Your task to perform on an android device: Open the Play Movies app and select the watchlist tab. Image 0: 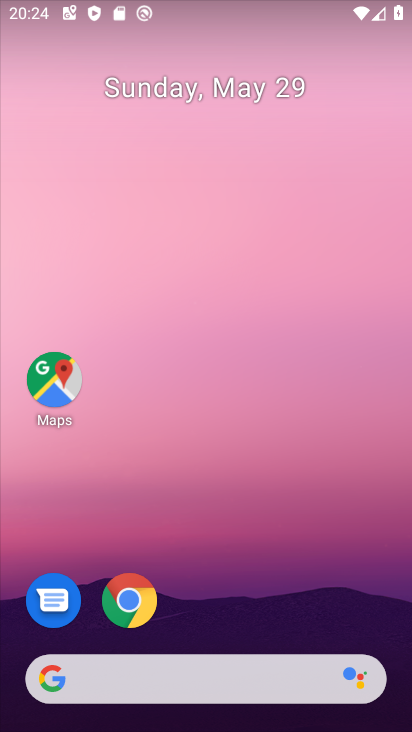
Step 0: drag from (243, 569) to (217, 183)
Your task to perform on an android device: Open the Play Movies app and select the watchlist tab. Image 1: 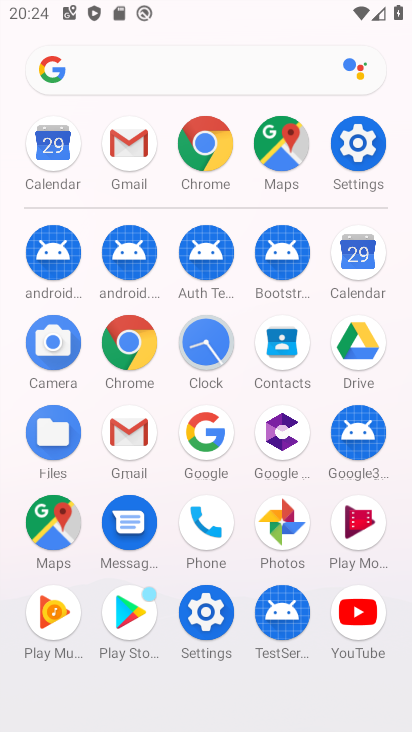
Step 1: click (354, 544)
Your task to perform on an android device: Open the Play Movies app and select the watchlist tab. Image 2: 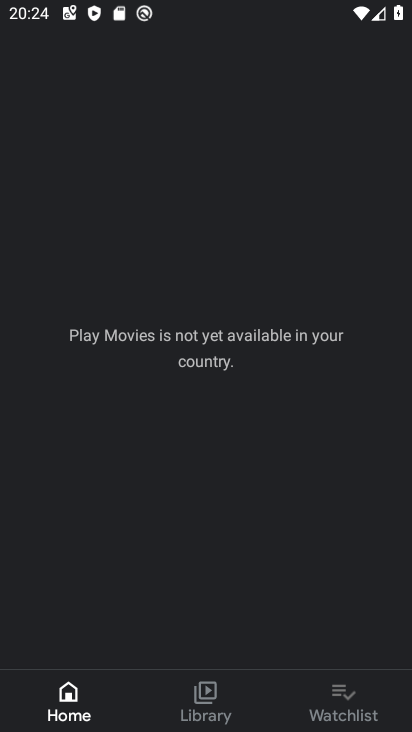
Step 2: click (348, 708)
Your task to perform on an android device: Open the Play Movies app and select the watchlist tab. Image 3: 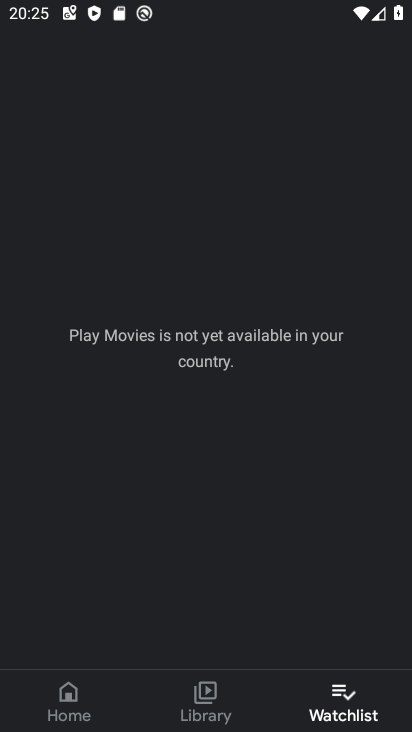
Step 3: task complete